Your task to perform on an android device: set the stopwatch Image 0: 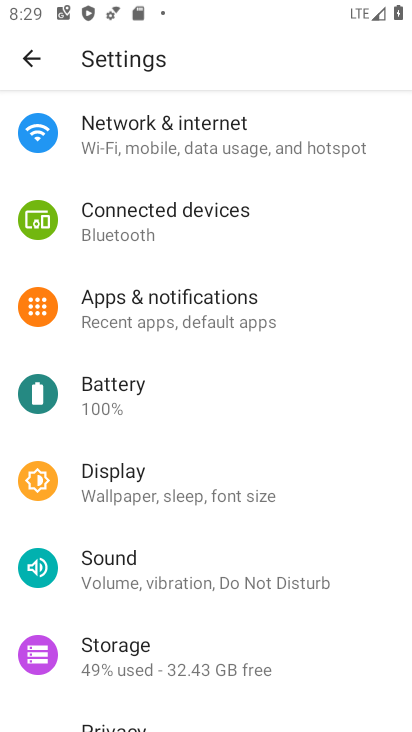
Step 0: press home button
Your task to perform on an android device: set the stopwatch Image 1: 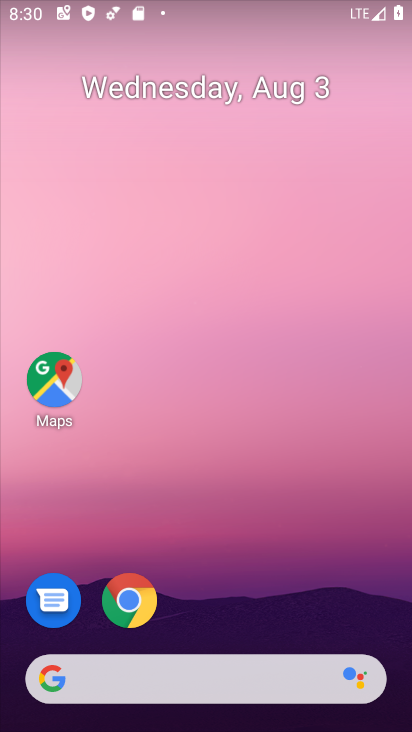
Step 1: drag from (211, 510) to (235, 10)
Your task to perform on an android device: set the stopwatch Image 2: 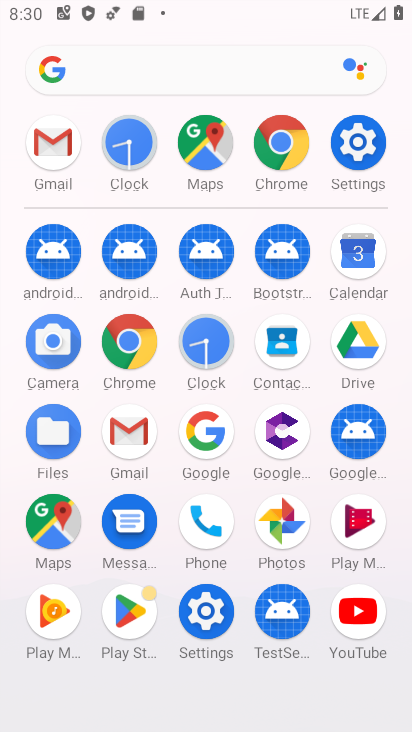
Step 2: click (202, 357)
Your task to perform on an android device: set the stopwatch Image 3: 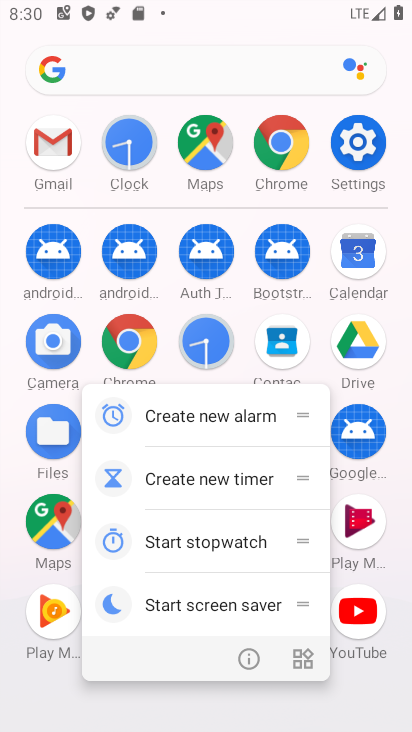
Step 3: click (200, 342)
Your task to perform on an android device: set the stopwatch Image 4: 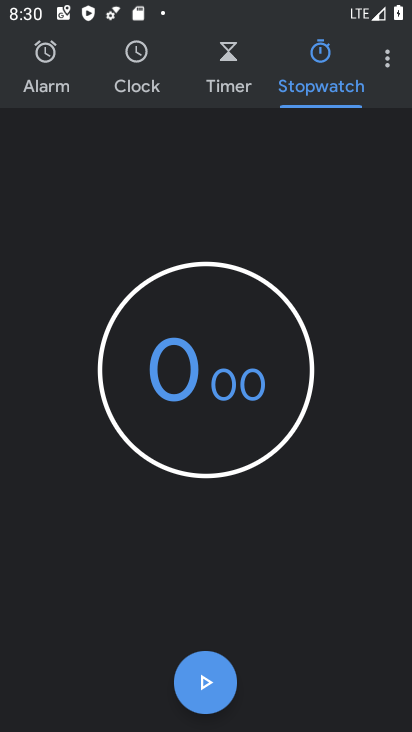
Step 4: click (202, 668)
Your task to perform on an android device: set the stopwatch Image 5: 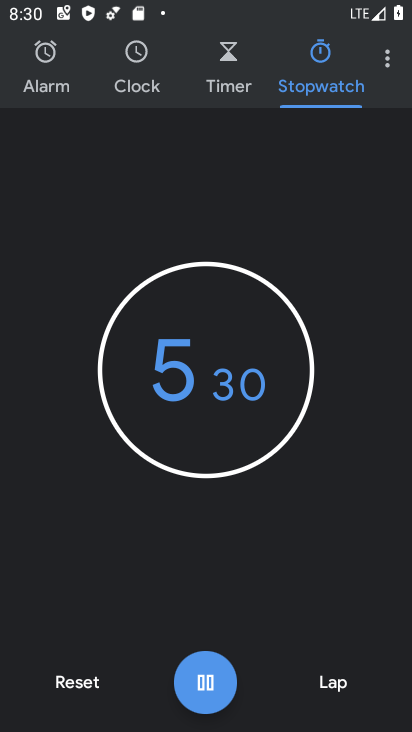
Step 5: task complete